Your task to perform on an android device: turn off smart reply in the gmail app Image 0: 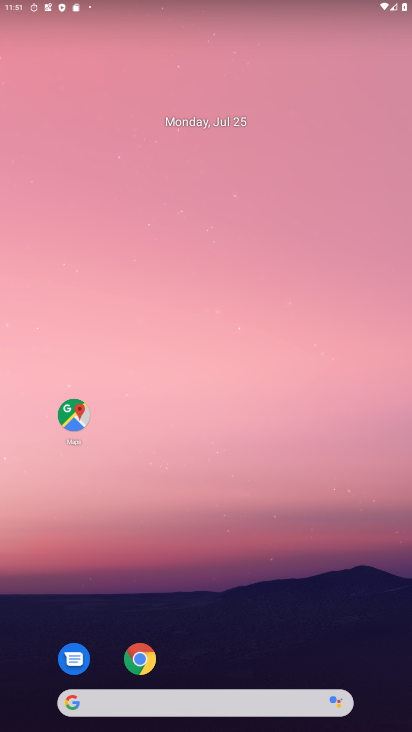
Step 0: drag from (187, 642) to (201, 241)
Your task to perform on an android device: turn off smart reply in the gmail app Image 1: 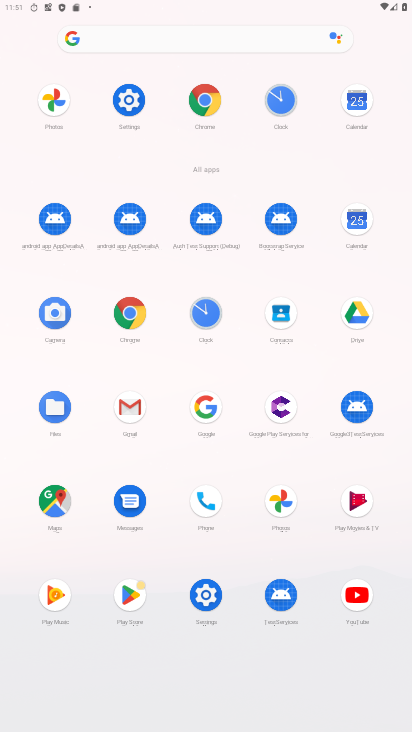
Step 1: click (130, 411)
Your task to perform on an android device: turn off smart reply in the gmail app Image 2: 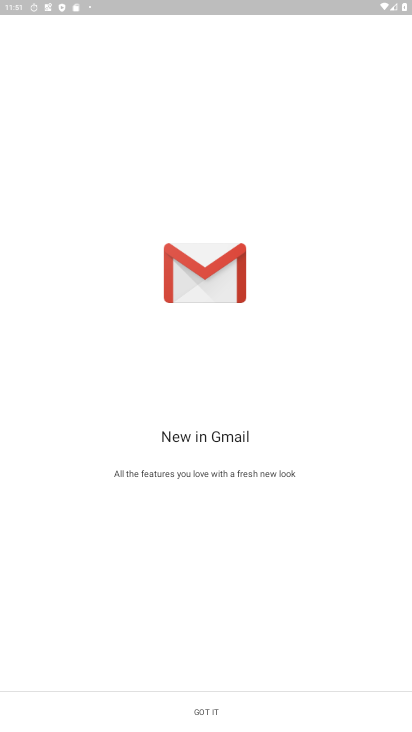
Step 2: click (201, 699)
Your task to perform on an android device: turn off smart reply in the gmail app Image 3: 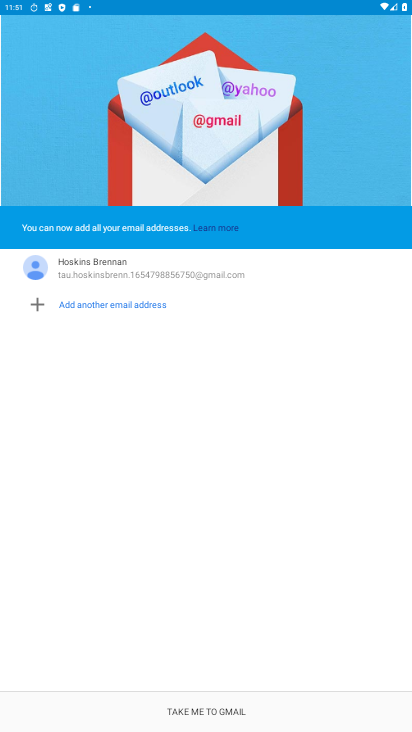
Step 3: click (201, 699)
Your task to perform on an android device: turn off smart reply in the gmail app Image 4: 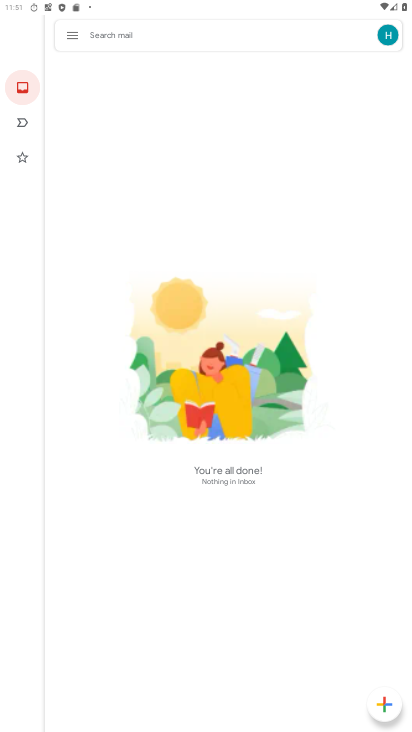
Step 4: click (67, 34)
Your task to perform on an android device: turn off smart reply in the gmail app Image 5: 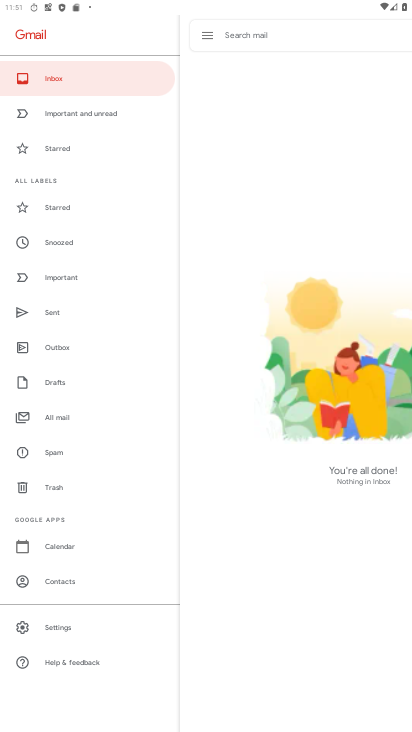
Step 5: click (55, 625)
Your task to perform on an android device: turn off smart reply in the gmail app Image 6: 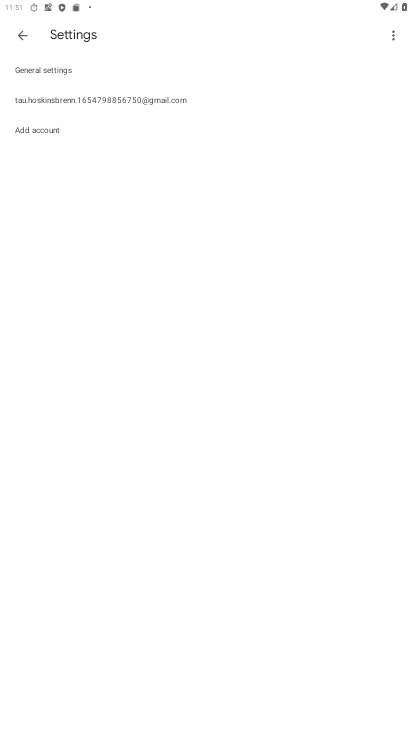
Step 6: click (136, 96)
Your task to perform on an android device: turn off smart reply in the gmail app Image 7: 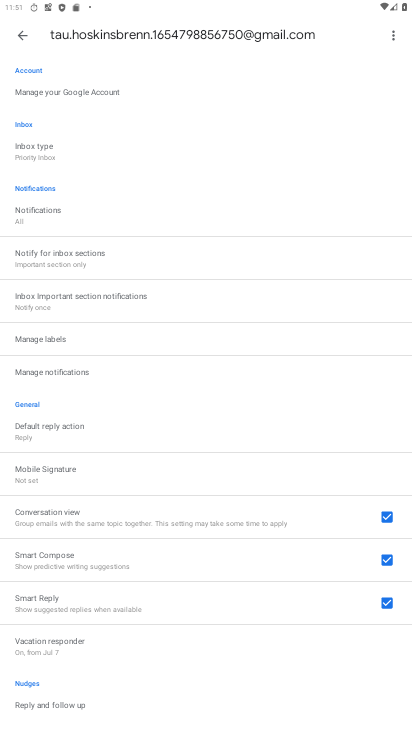
Step 7: click (385, 600)
Your task to perform on an android device: turn off smart reply in the gmail app Image 8: 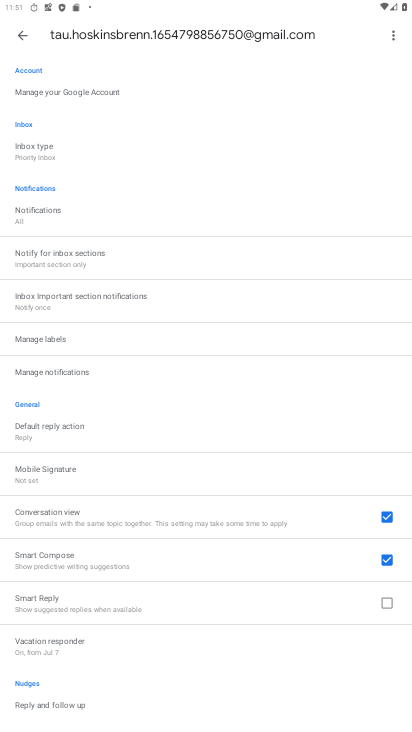
Step 8: task complete